Your task to perform on an android device: install app "NewsBreak: Local News & Alerts" Image 0: 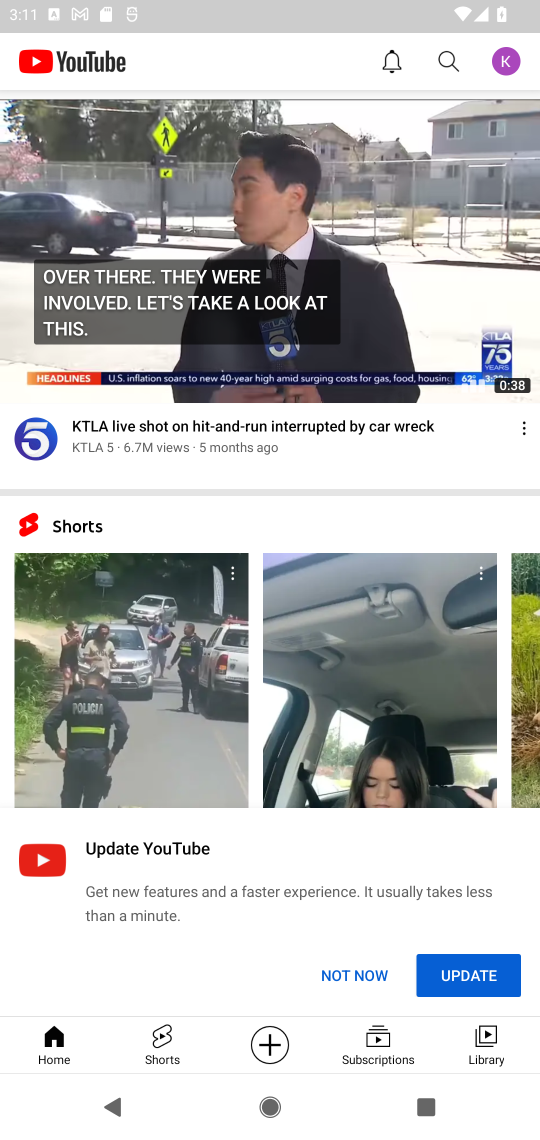
Step 0: press home button
Your task to perform on an android device: install app "NewsBreak: Local News & Alerts" Image 1: 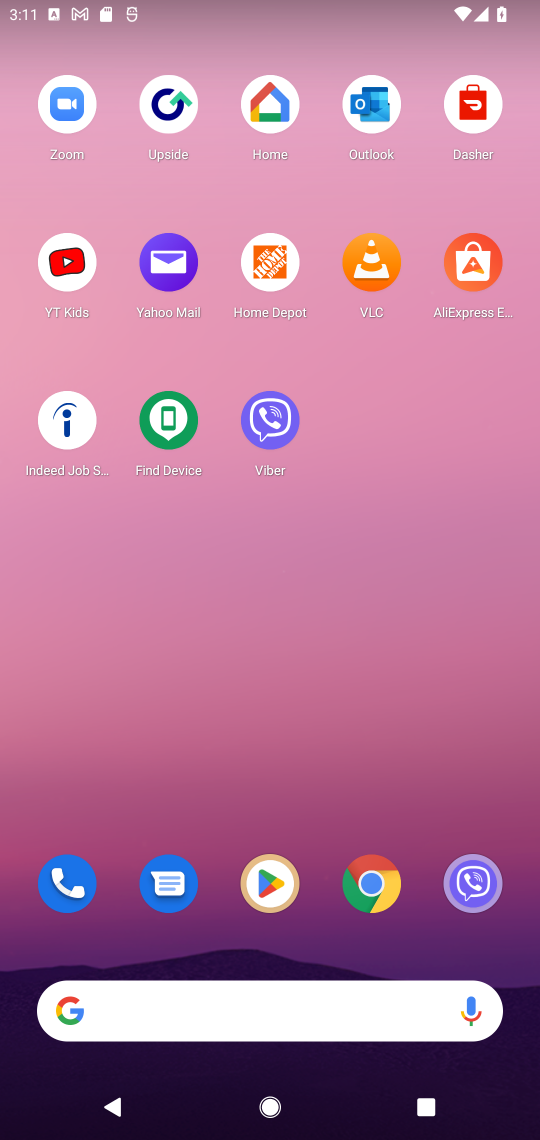
Step 1: drag from (266, 963) to (188, 329)
Your task to perform on an android device: install app "NewsBreak: Local News & Alerts" Image 2: 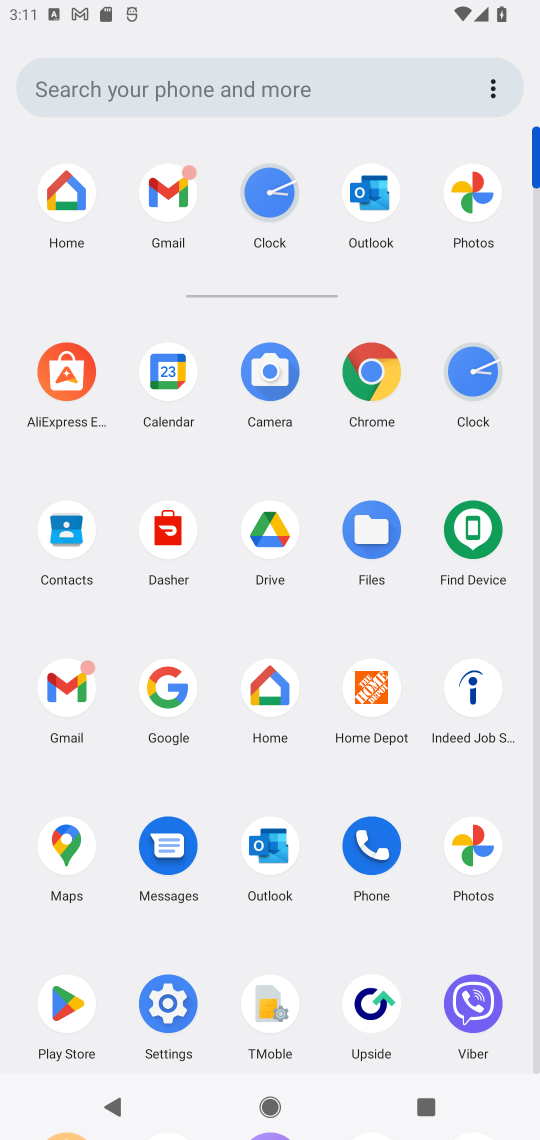
Step 2: click (54, 1005)
Your task to perform on an android device: install app "NewsBreak: Local News & Alerts" Image 3: 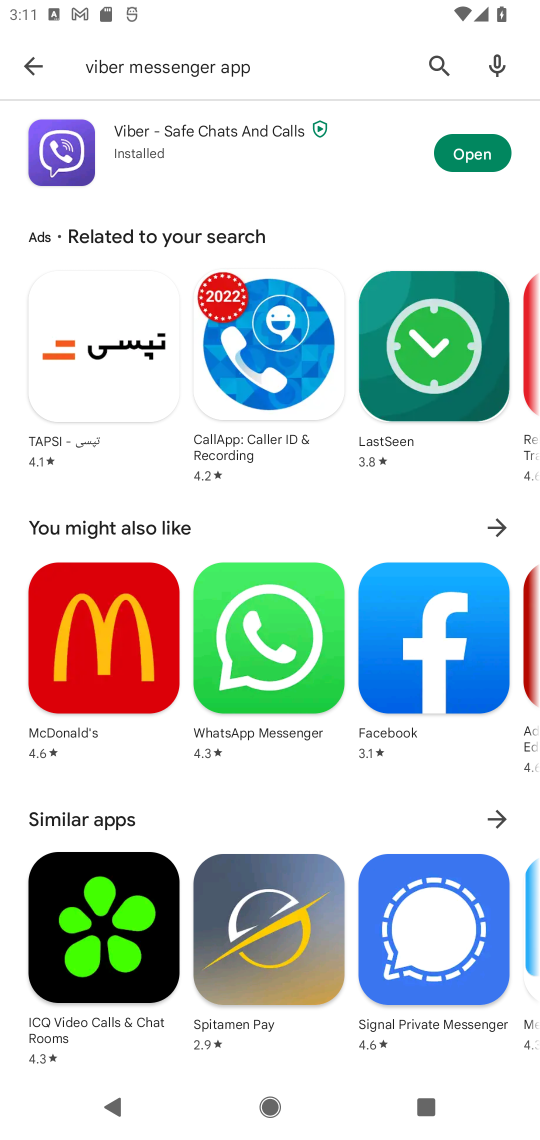
Step 3: click (436, 61)
Your task to perform on an android device: install app "NewsBreak: Local News & Alerts" Image 4: 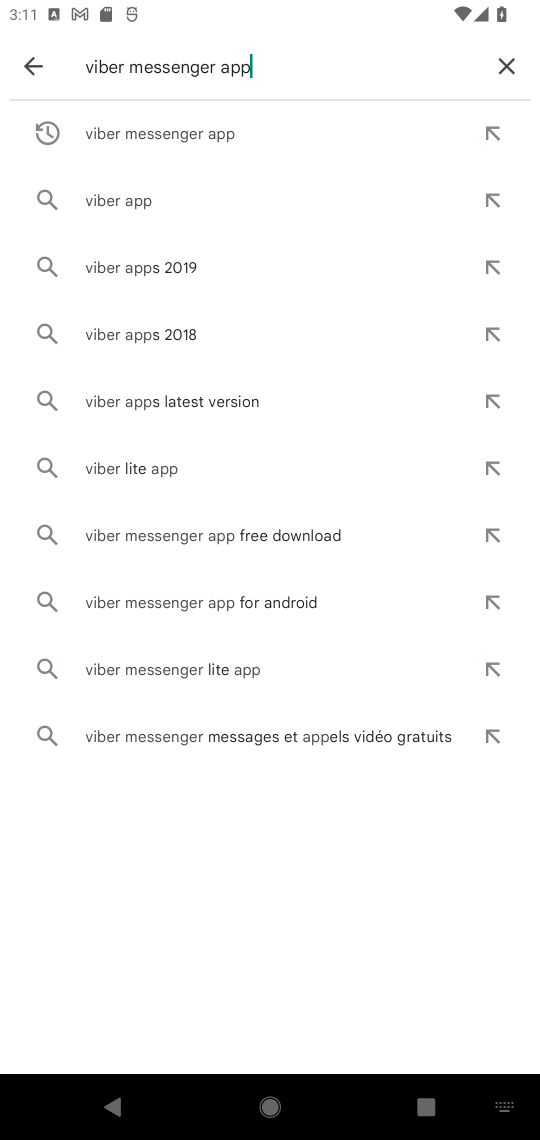
Step 4: click (503, 60)
Your task to perform on an android device: install app "NewsBreak: Local News & Alerts" Image 5: 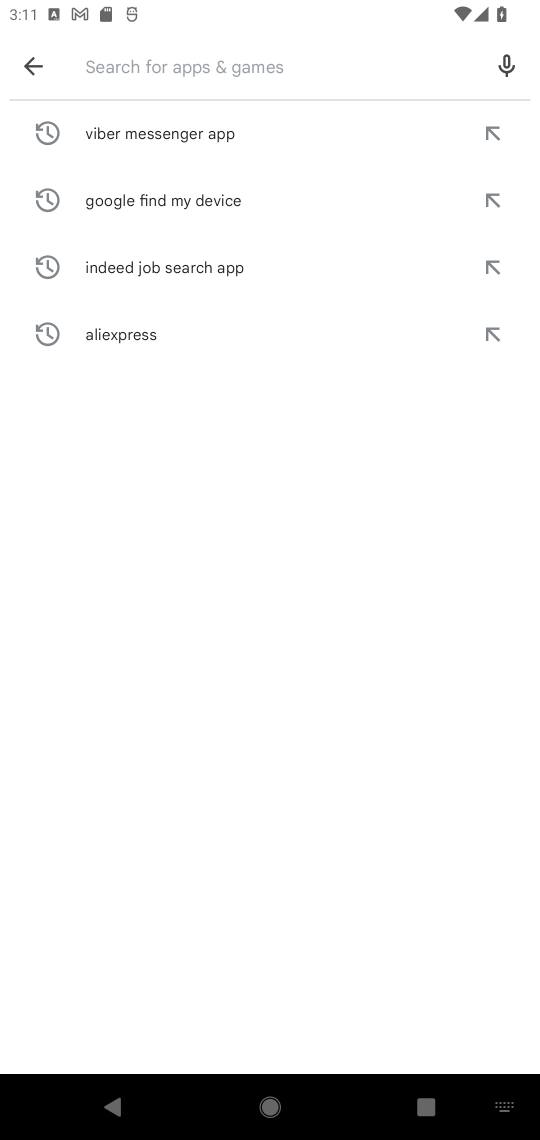
Step 5: type "NewsBreak: Local News & Alerts"
Your task to perform on an android device: install app "NewsBreak: Local News & Alerts" Image 6: 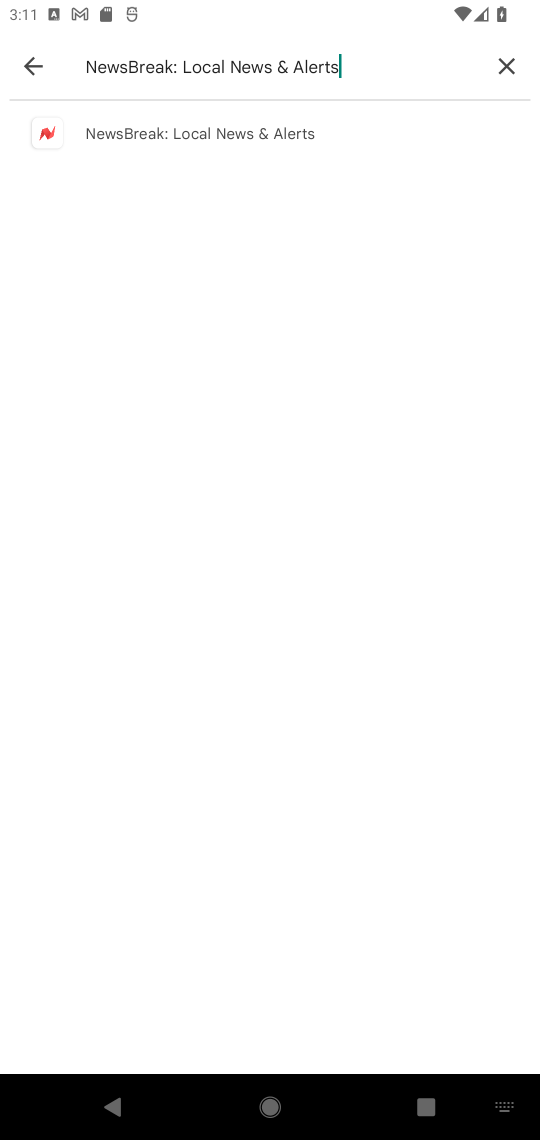
Step 6: click (228, 129)
Your task to perform on an android device: install app "NewsBreak: Local News & Alerts" Image 7: 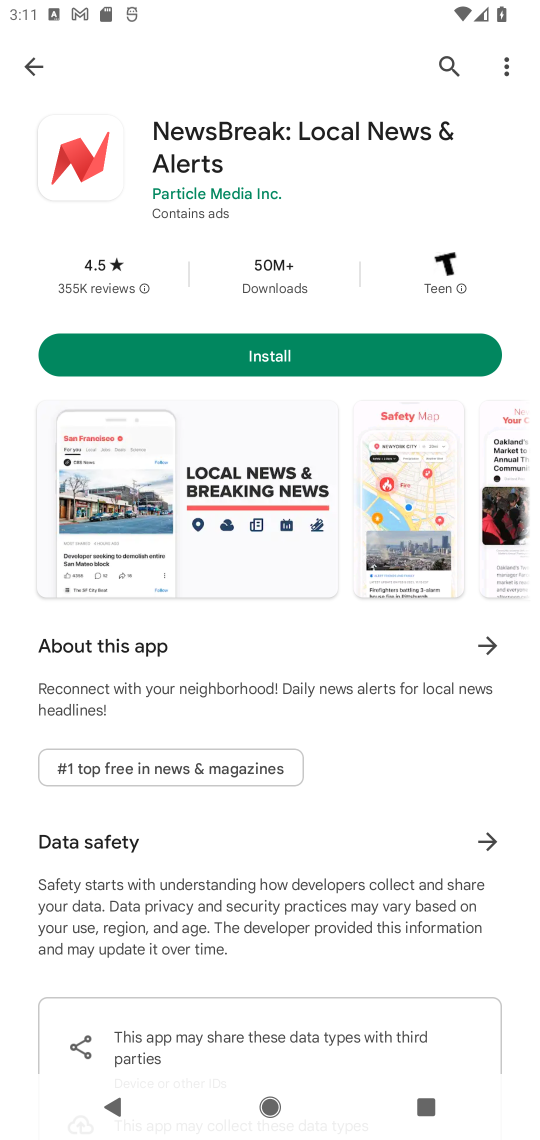
Step 7: click (283, 357)
Your task to perform on an android device: install app "NewsBreak: Local News & Alerts" Image 8: 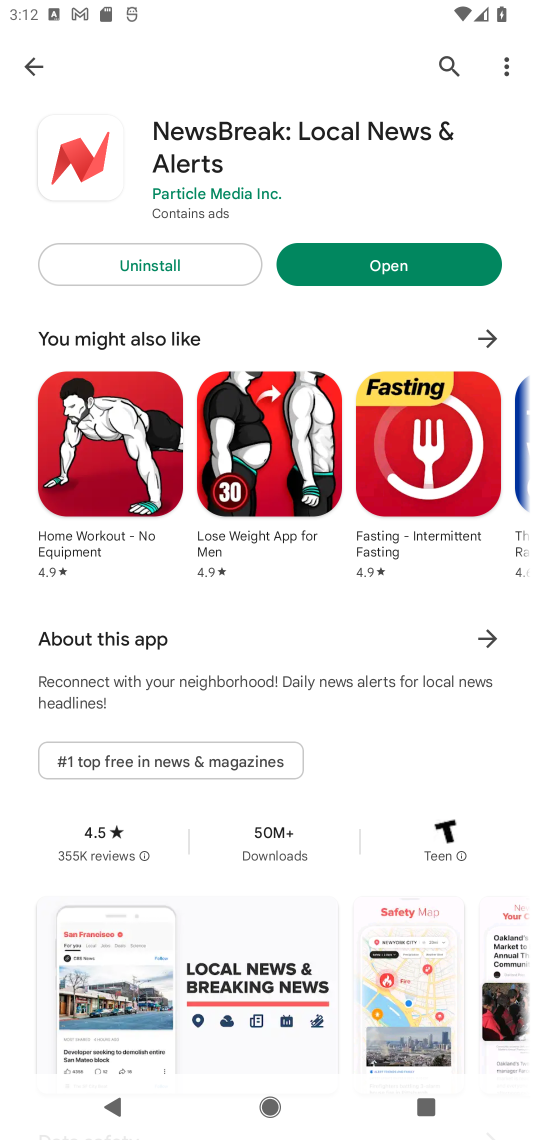
Step 8: click (359, 253)
Your task to perform on an android device: install app "NewsBreak: Local News & Alerts" Image 9: 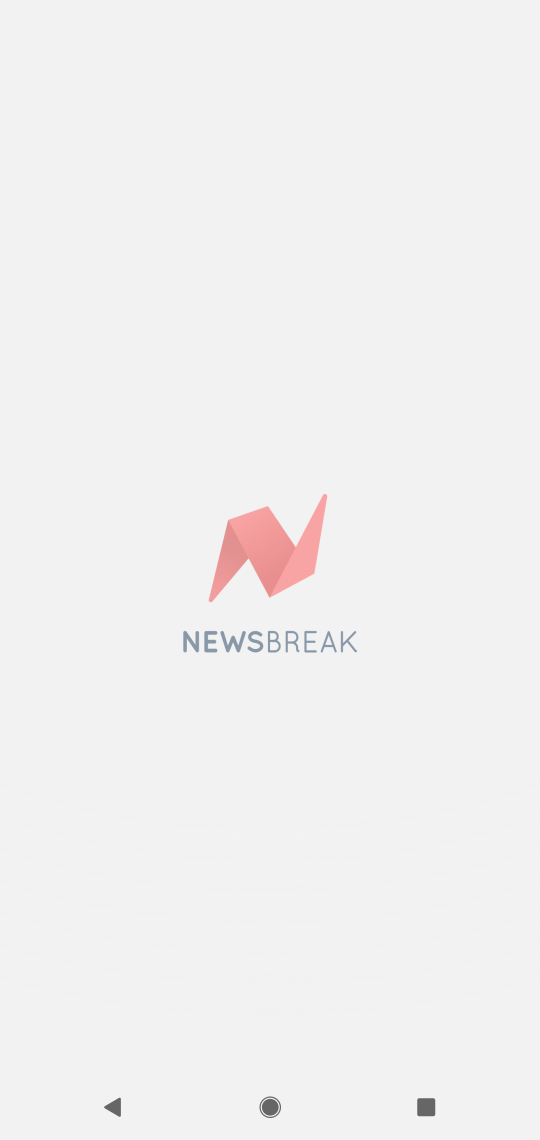
Step 9: task complete